Your task to perform on an android device: What's the latest news in astrophysics? Image 0: 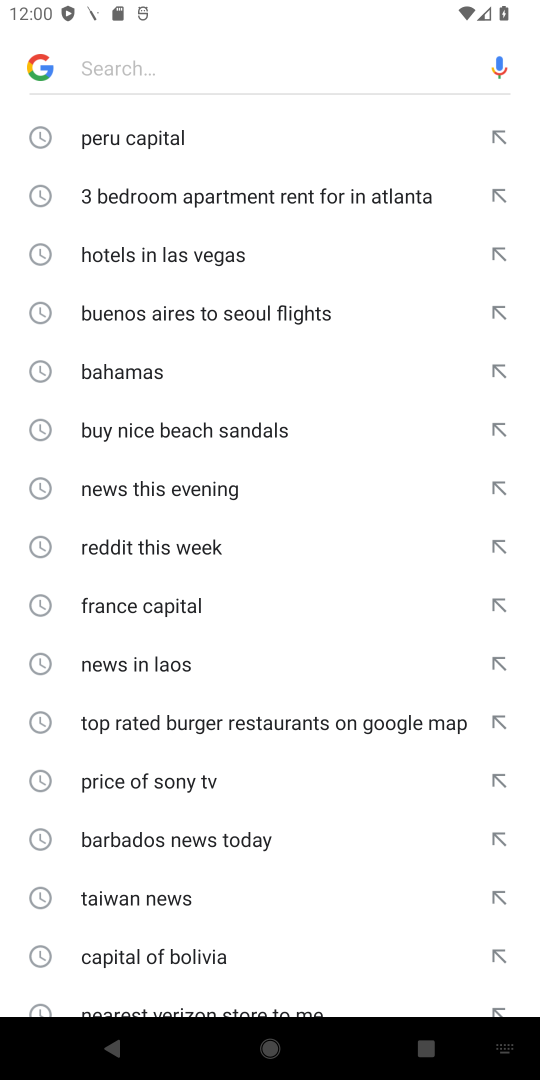
Step 0: press home button
Your task to perform on an android device: What's the latest news in astrophysics? Image 1: 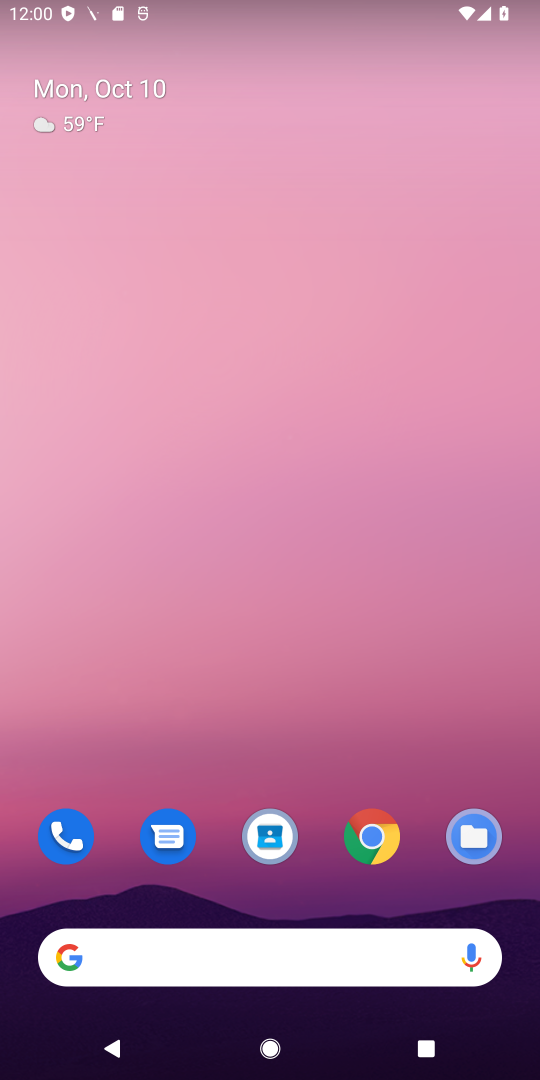
Step 1: click (397, 843)
Your task to perform on an android device: What's the latest news in astrophysics? Image 2: 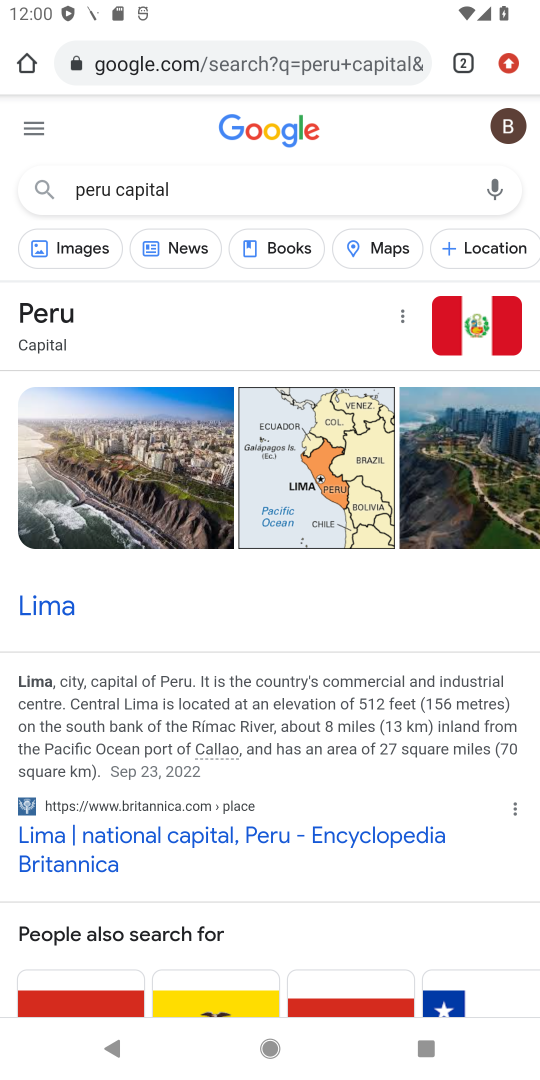
Step 2: click (274, 57)
Your task to perform on an android device: What's the latest news in astrophysics? Image 3: 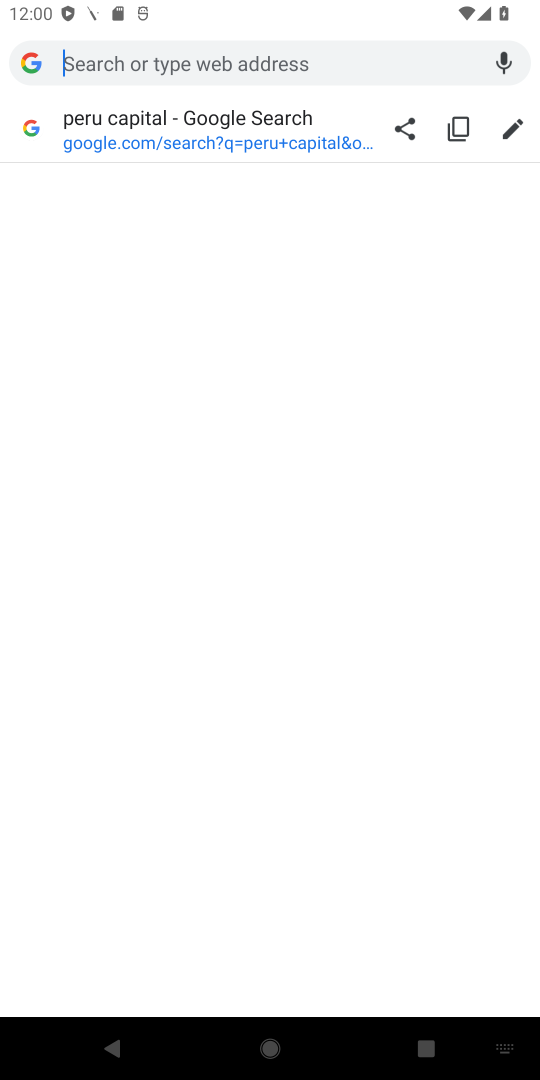
Step 3: type "astrophysics"
Your task to perform on an android device: What's the latest news in astrophysics? Image 4: 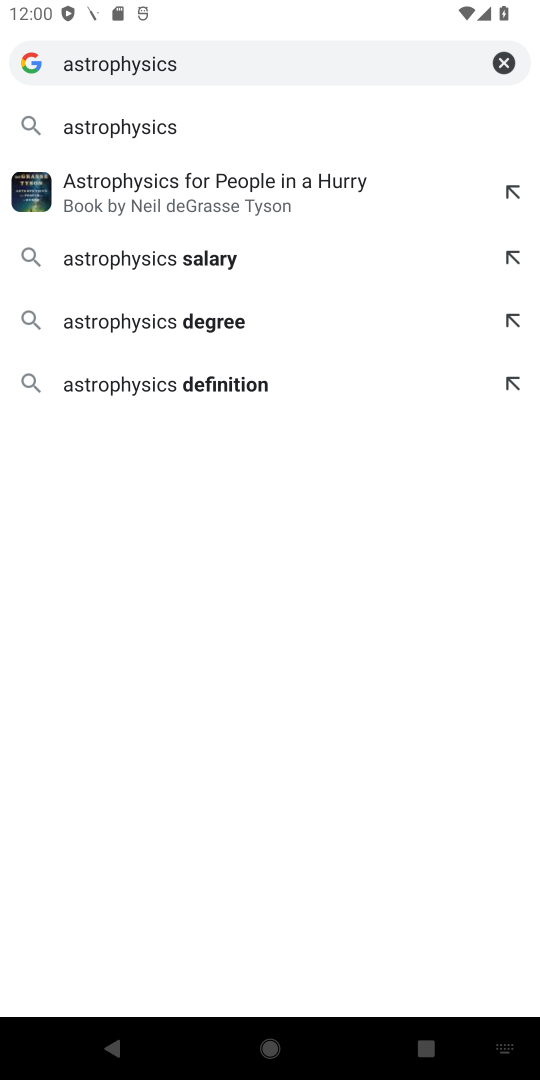
Step 4: click (212, 118)
Your task to perform on an android device: What's the latest news in astrophysics? Image 5: 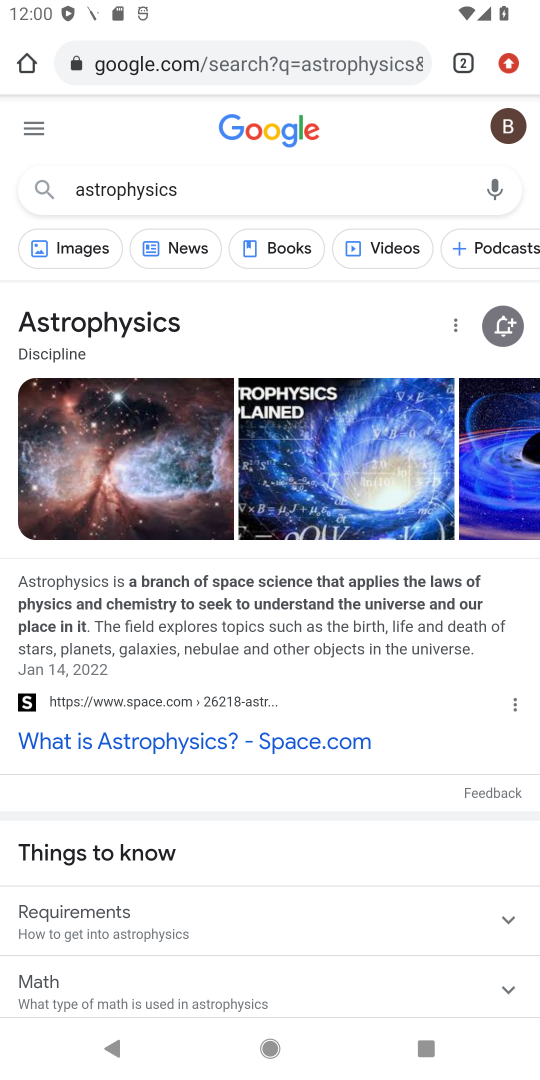
Step 5: click (193, 247)
Your task to perform on an android device: What's the latest news in astrophysics? Image 6: 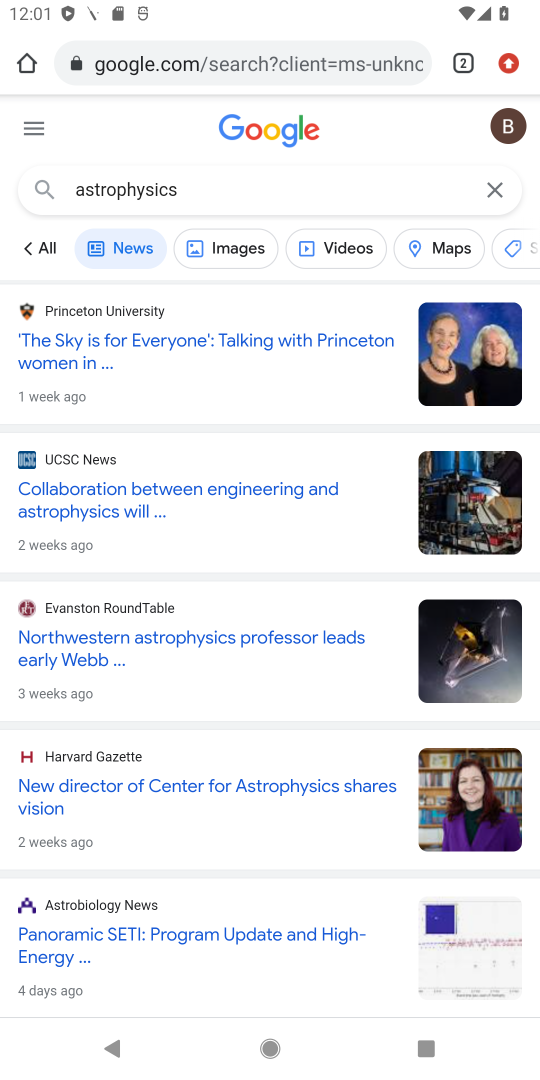
Step 6: task complete